Your task to perform on an android device: open app "DuckDuckGo Privacy Browser" Image 0: 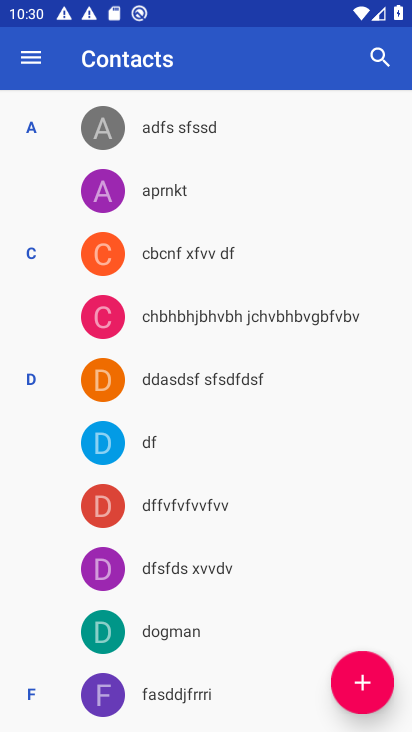
Step 0: press home button
Your task to perform on an android device: open app "DuckDuckGo Privacy Browser" Image 1: 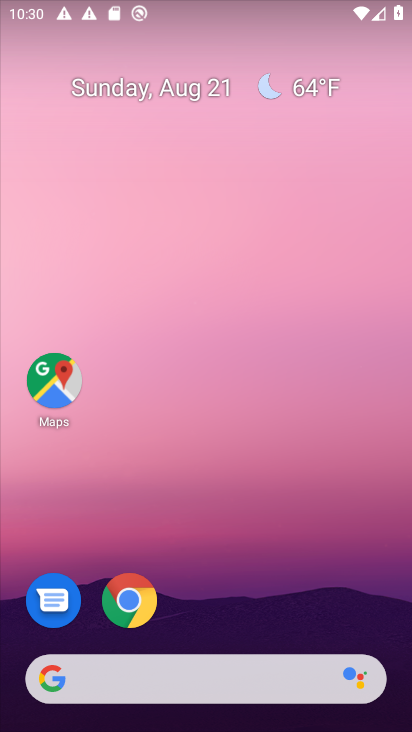
Step 1: drag from (181, 615) to (190, 246)
Your task to perform on an android device: open app "DuckDuckGo Privacy Browser" Image 2: 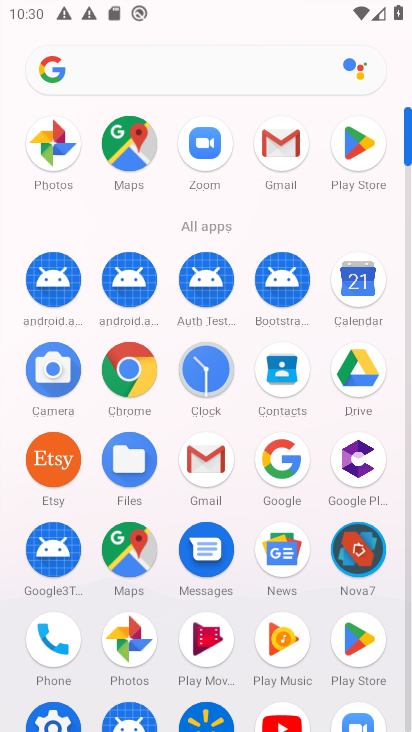
Step 2: click (199, 293)
Your task to perform on an android device: open app "DuckDuckGo Privacy Browser" Image 3: 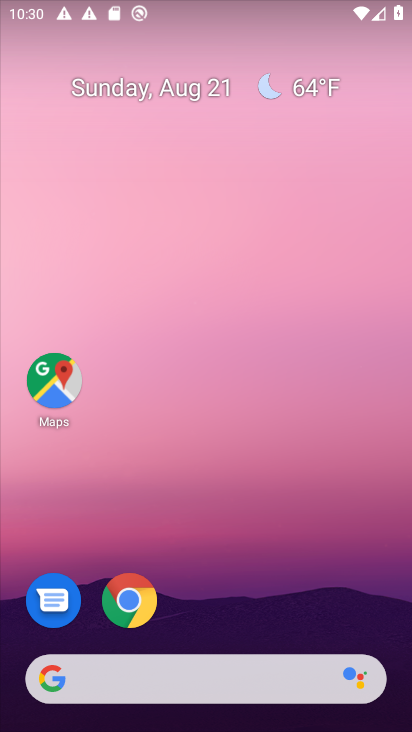
Step 3: click (359, 162)
Your task to perform on an android device: open app "DuckDuckGo Privacy Browser" Image 4: 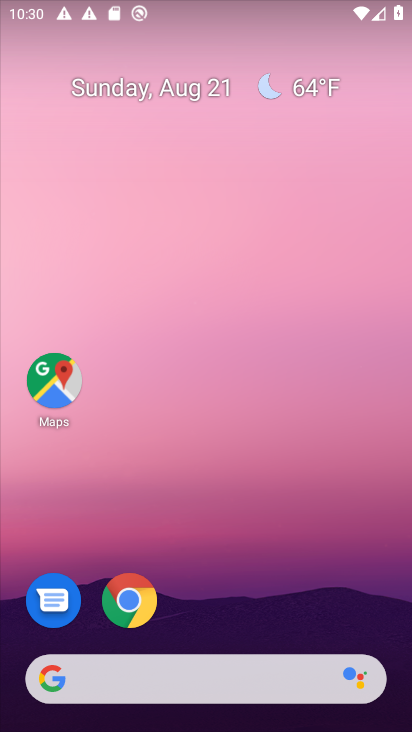
Step 4: drag from (214, 561) to (245, 18)
Your task to perform on an android device: open app "DuckDuckGo Privacy Browser" Image 5: 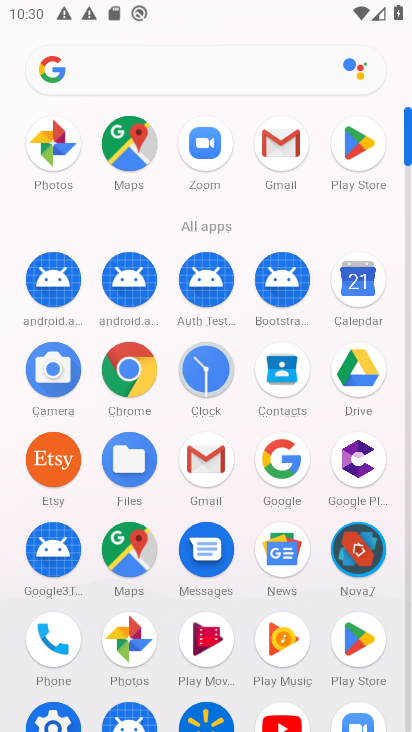
Step 5: click (363, 186)
Your task to perform on an android device: open app "DuckDuckGo Privacy Browser" Image 6: 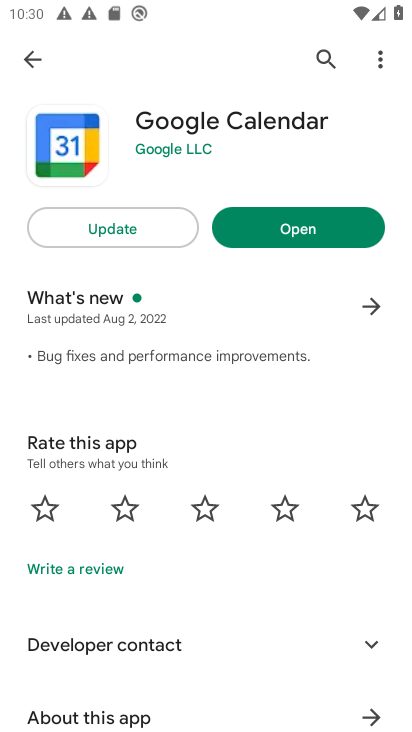
Step 6: click (36, 59)
Your task to perform on an android device: open app "DuckDuckGo Privacy Browser" Image 7: 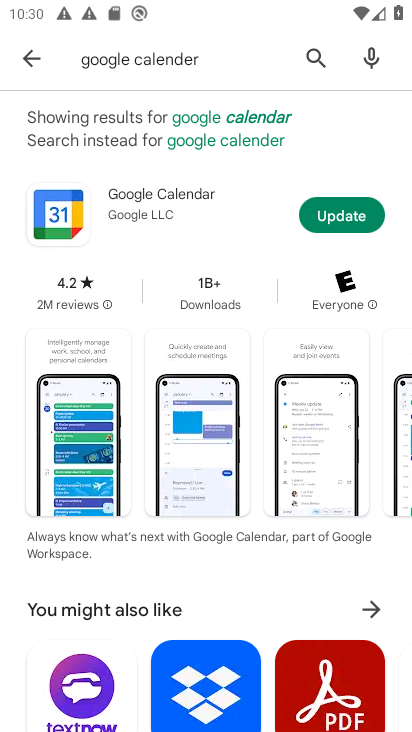
Step 7: click (143, 66)
Your task to perform on an android device: open app "DuckDuckGo Privacy Browser" Image 8: 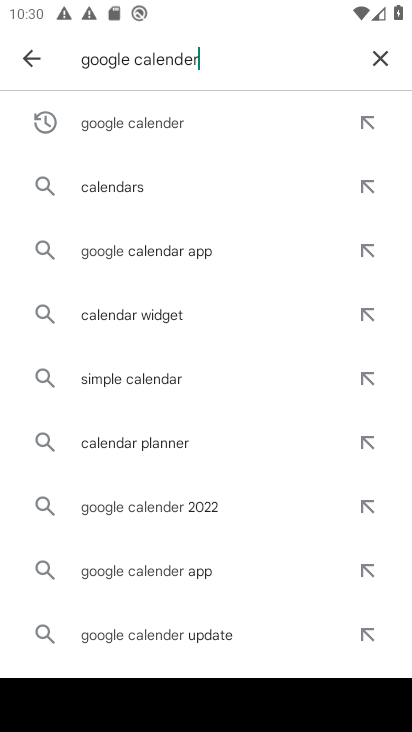
Step 8: click (375, 62)
Your task to perform on an android device: open app "DuckDuckGo Privacy Browser" Image 9: 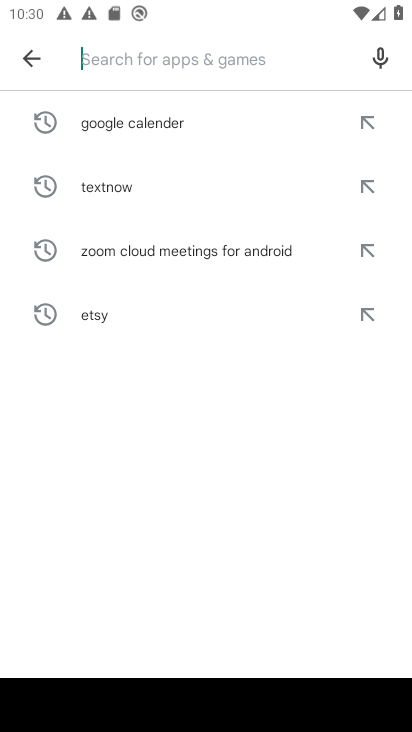
Step 9: type "Duckduckgo"
Your task to perform on an android device: open app "DuckDuckGo Privacy Browser" Image 10: 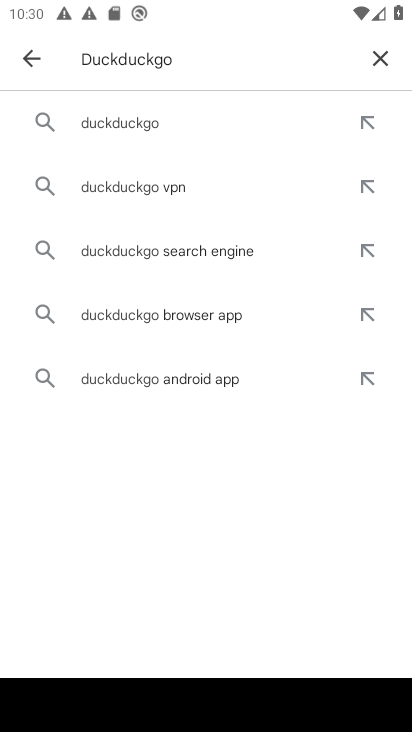
Step 10: click (167, 132)
Your task to perform on an android device: open app "DuckDuckGo Privacy Browser" Image 11: 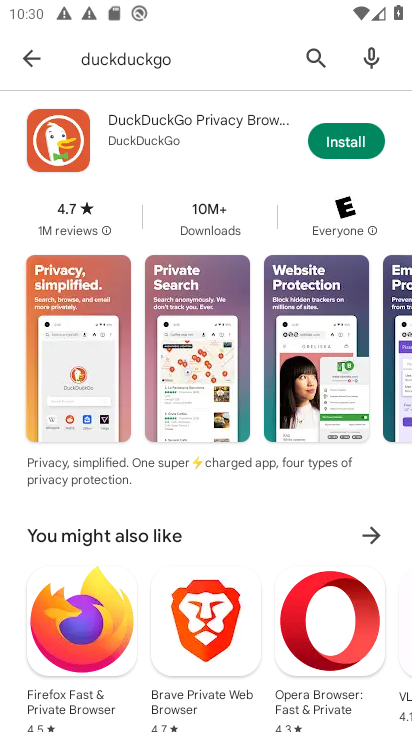
Step 11: task complete